Your task to perform on an android device: Open sound settings Image 0: 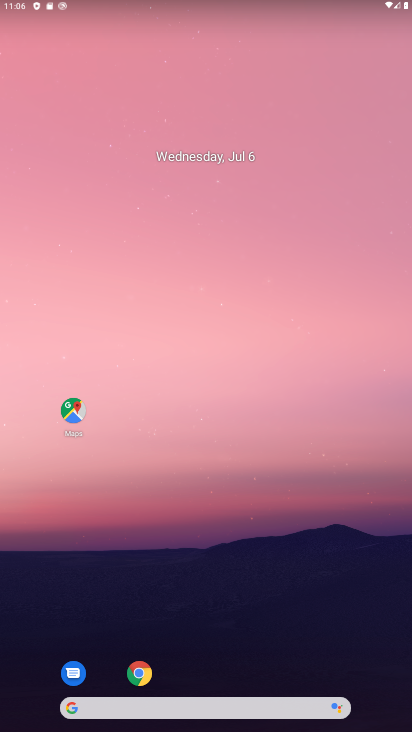
Step 0: drag from (46, 542) to (262, 86)
Your task to perform on an android device: Open sound settings Image 1: 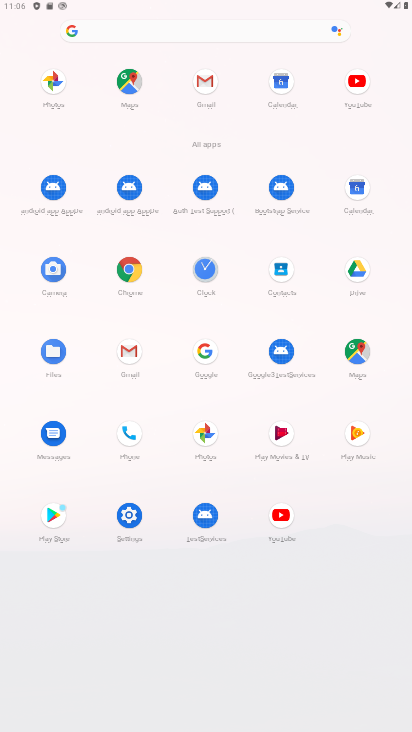
Step 1: click (126, 514)
Your task to perform on an android device: Open sound settings Image 2: 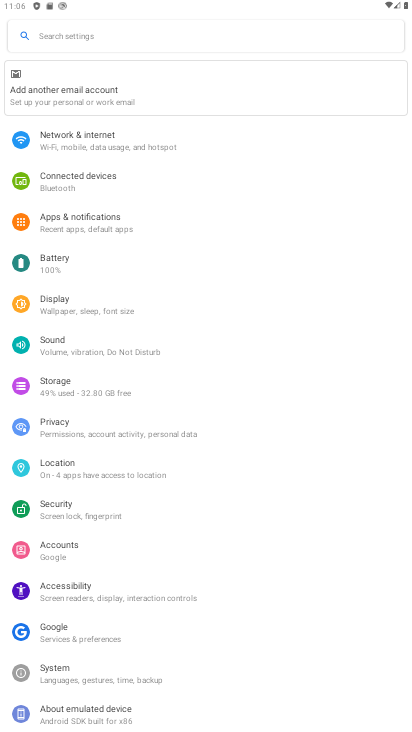
Step 2: click (123, 342)
Your task to perform on an android device: Open sound settings Image 3: 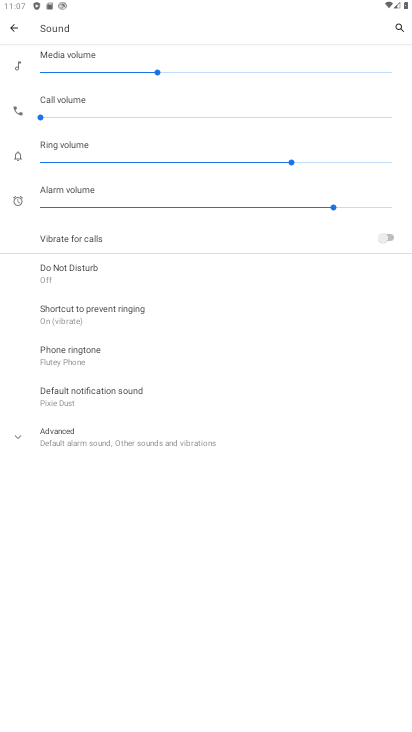
Step 3: press back button
Your task to perform on an android device: Open sound settings Image 4: 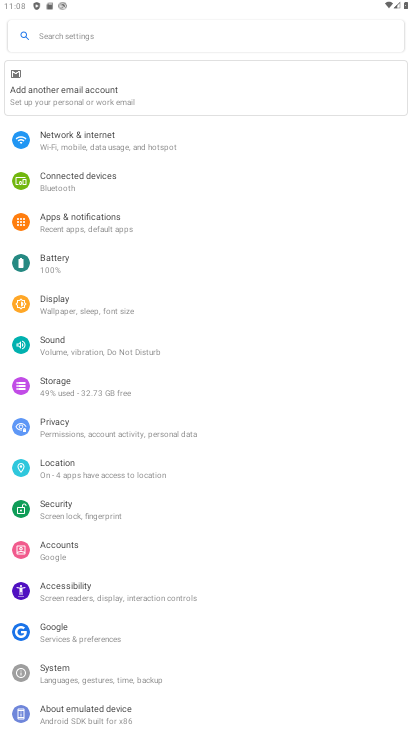
Step 4: click (141, 354)
Your task to perform on an android device: Open sound settings Image 5: 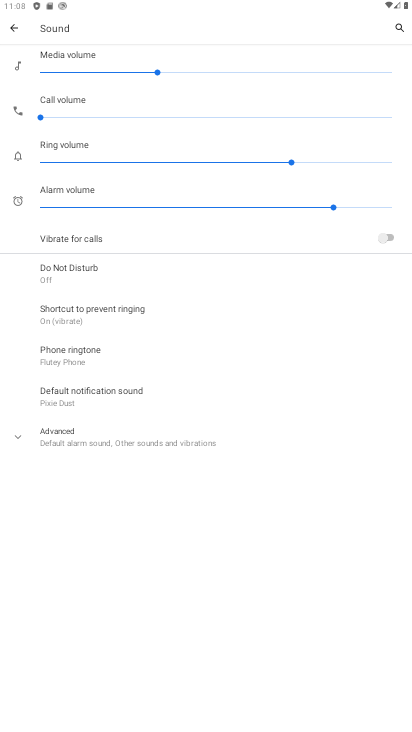
Step 5: task complete